Your task to perform on an android device: install app "HBO Max: Stream TV & Movies" Image 0: 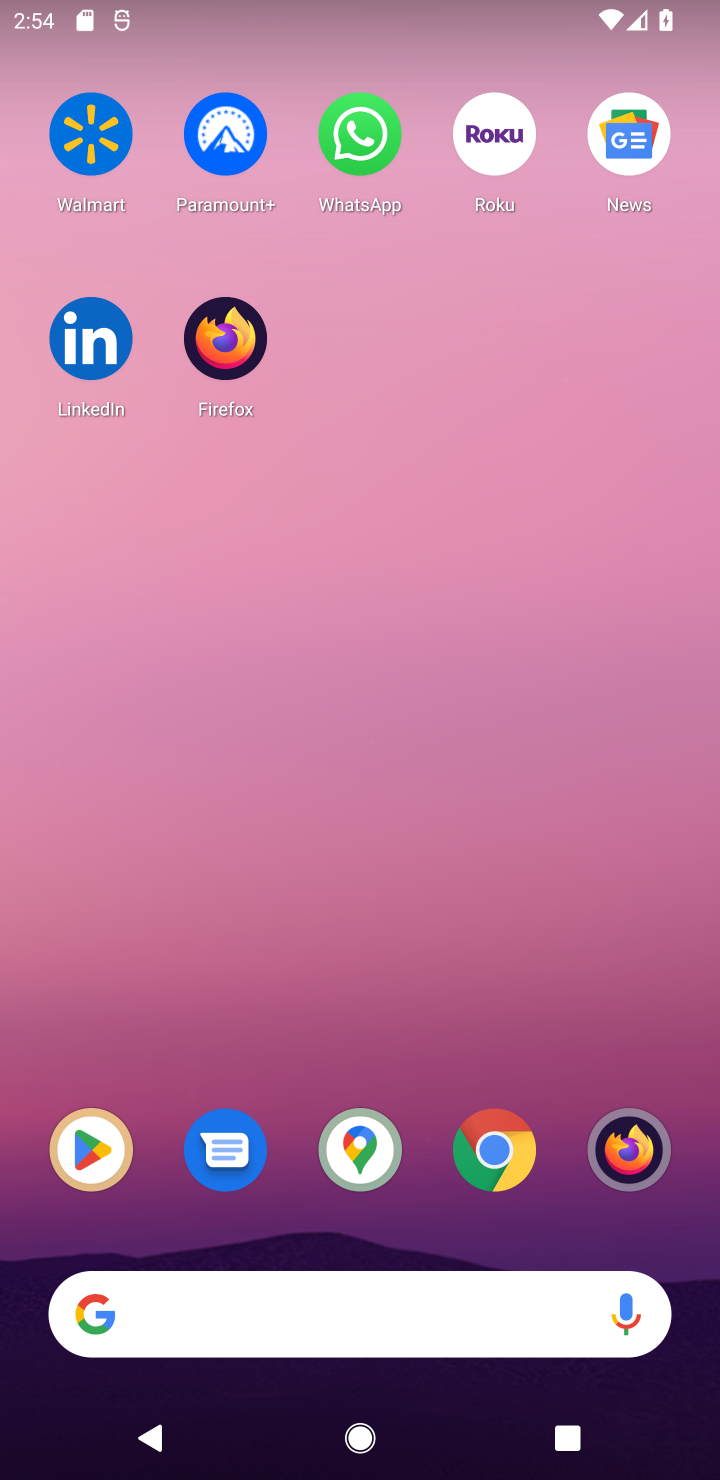
Step 0: drag from (437, 1222) to (440, 275)
Your task to perform on an android device: install app "HBO Max: Stream TV & Movies" Image 1: 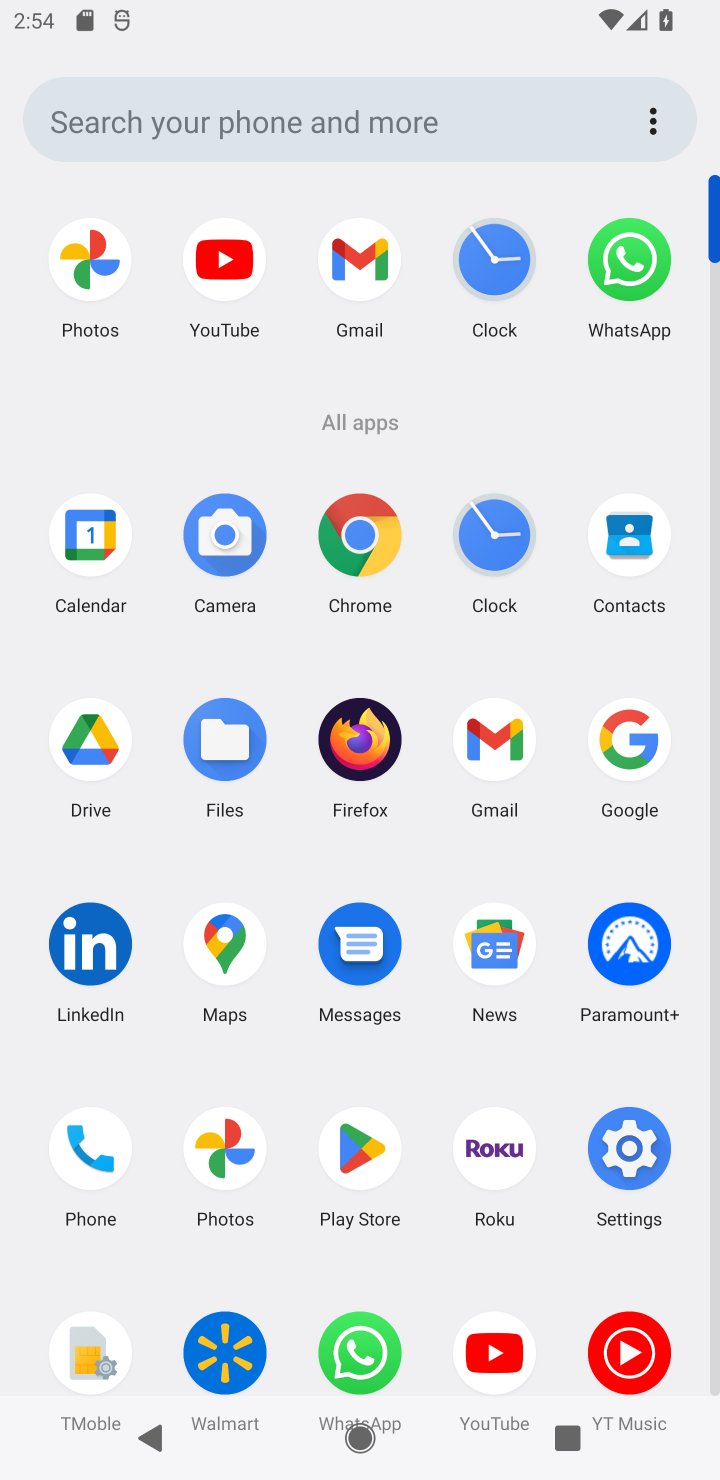
Step 1: click (362, 1139)
Your task to perform on an android device: install app "HBO Max: Stream TV & Movies" Image 2: 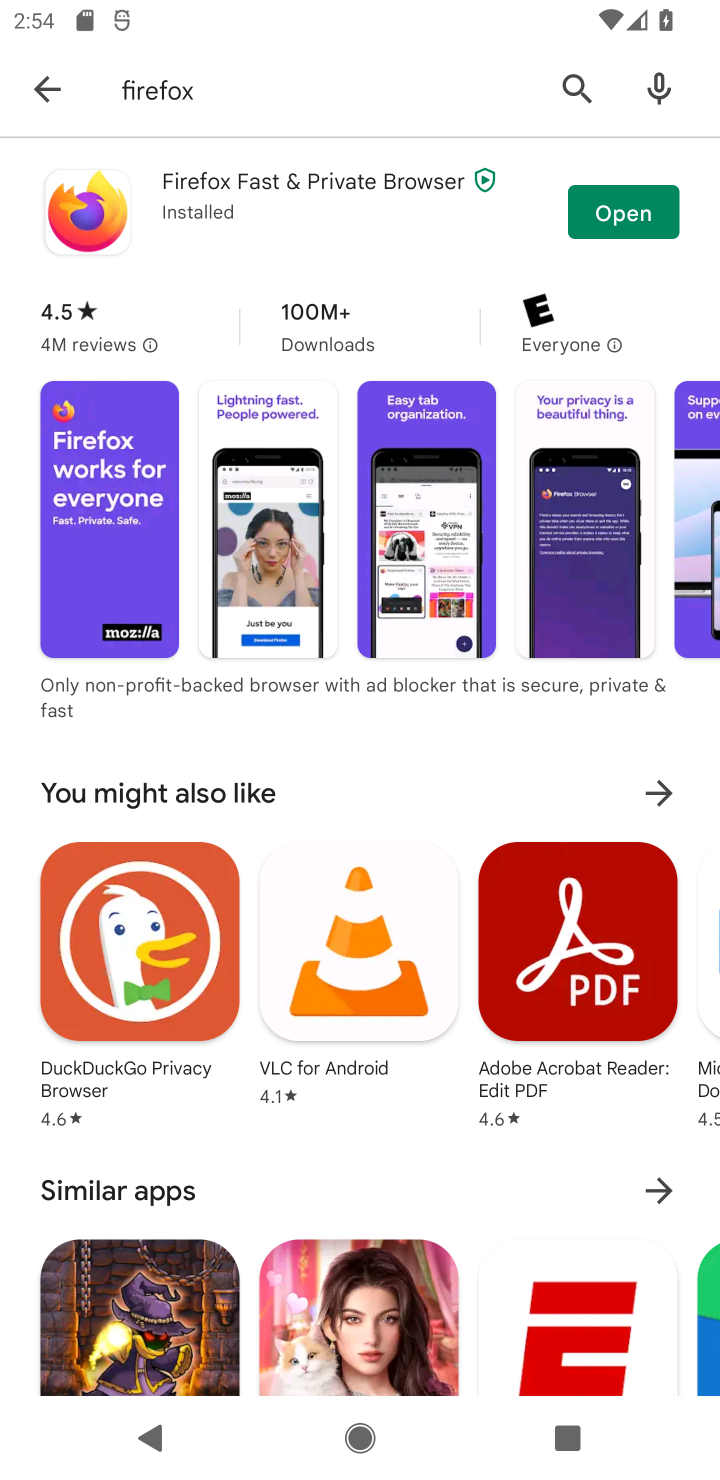
Step 2: click (553, 111)
Your task to perform on an android device: install app "HBO Max: Stream TV & Movies" Image 3: 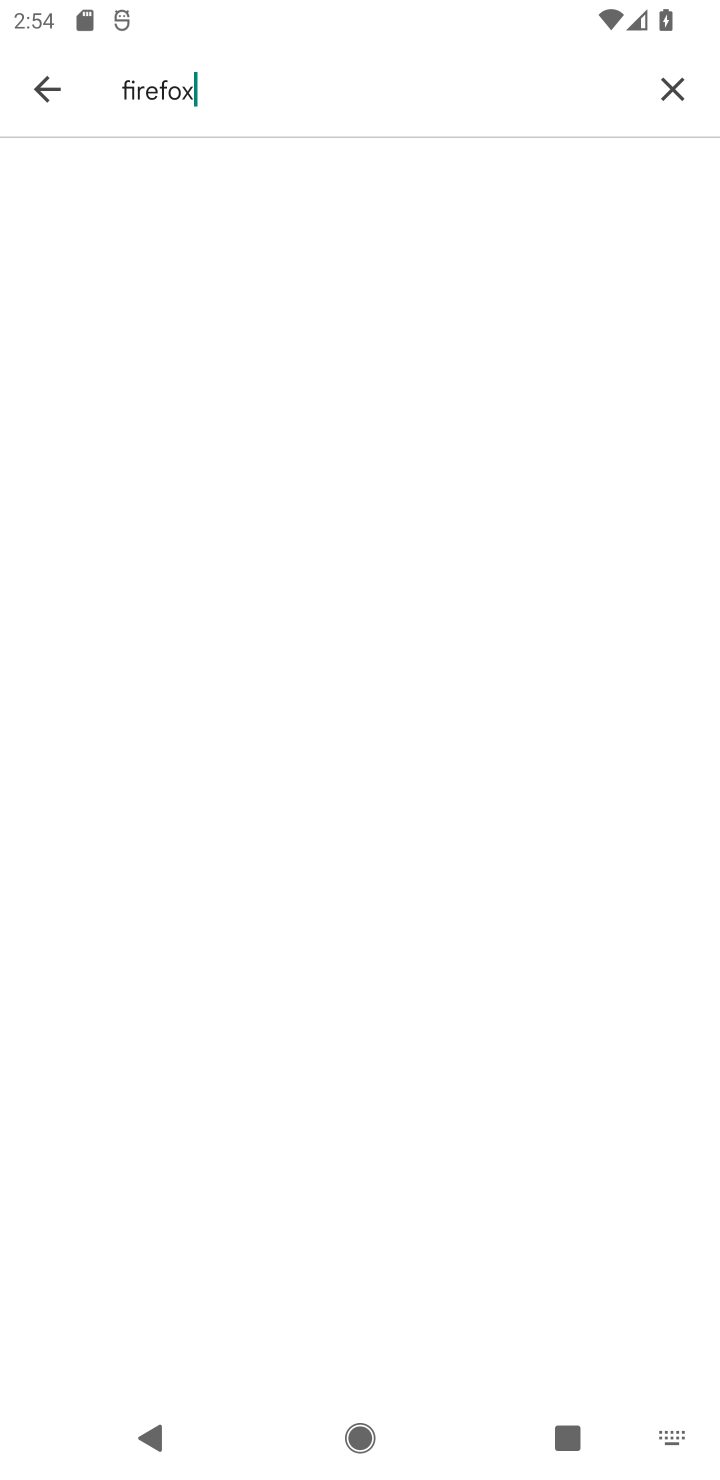
Step 3: click (553, 111)
Your task to perform on an android device: install app "HBO Max: Stream TV & Movies" Image 4: 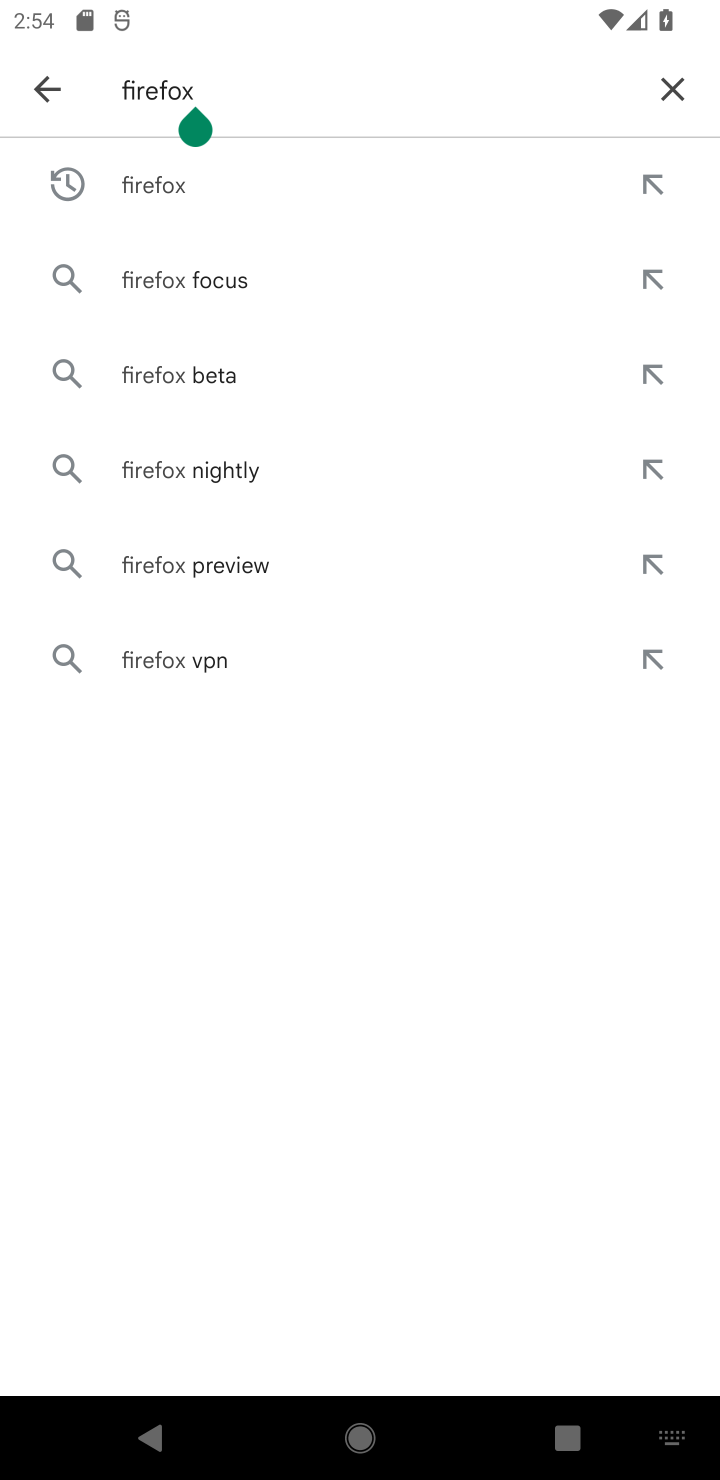
Step 4: click (666, 104)
Your task to perform on an android device: install app "HBO Max: Stream TV & Movies" Image 5: 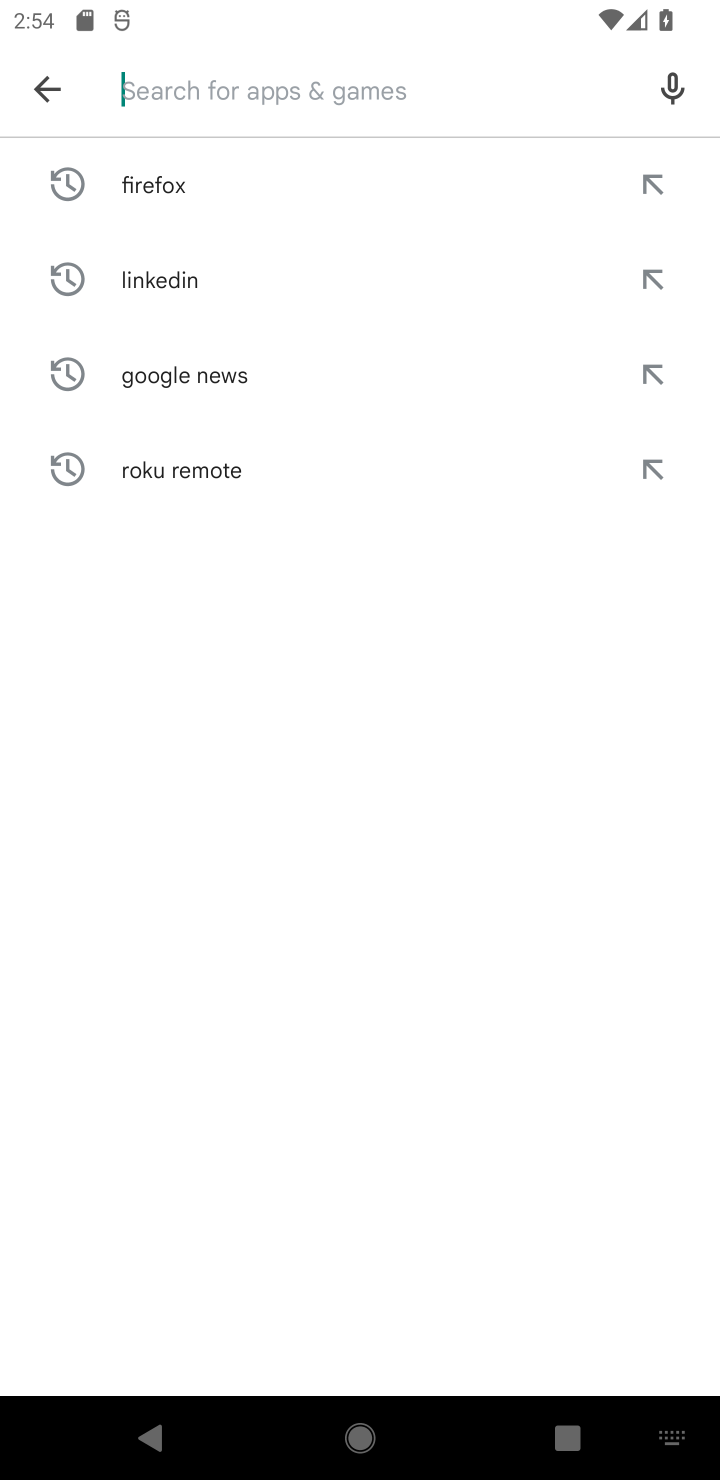
Step 5: type "HBO Max"
Your task to perform on an android device: install app "HBO Max: Stream TV & Movies" Image 6: 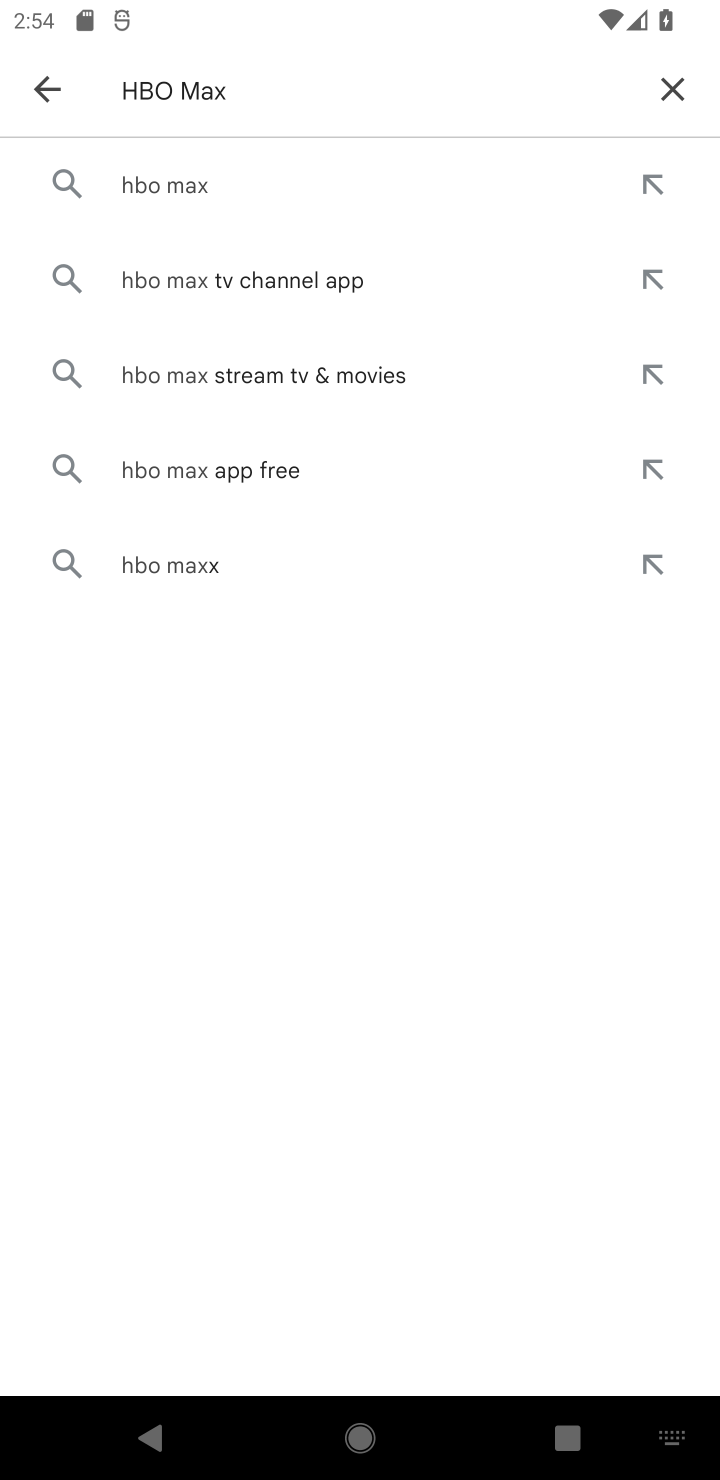
Step 6: click (644, 185)
Your task to perform on an android device: install app "HBO Max: Stream TV & Movies" Image 7: 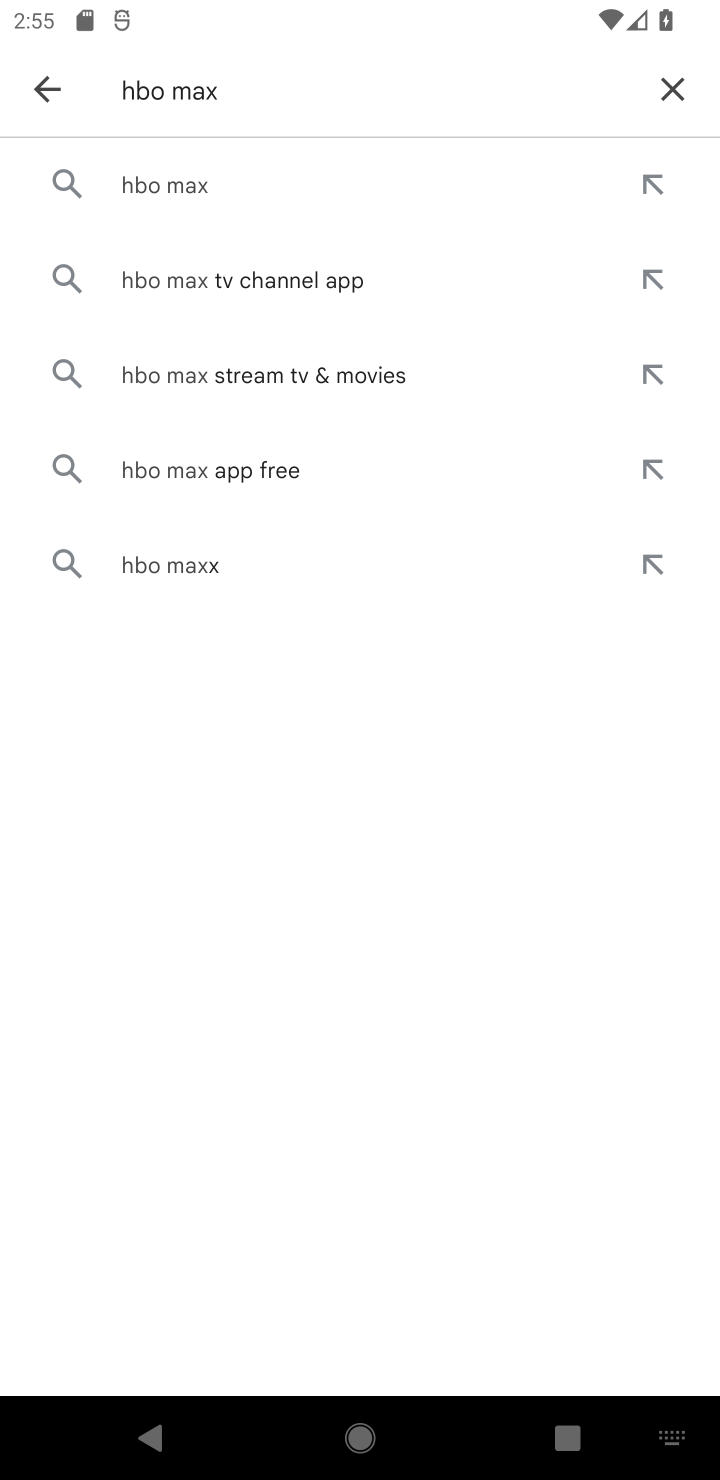
Step 7: click (396, 207)
Your task to perform on an android device: install app "HBO Max: Stream TV & Movies" Image 8: 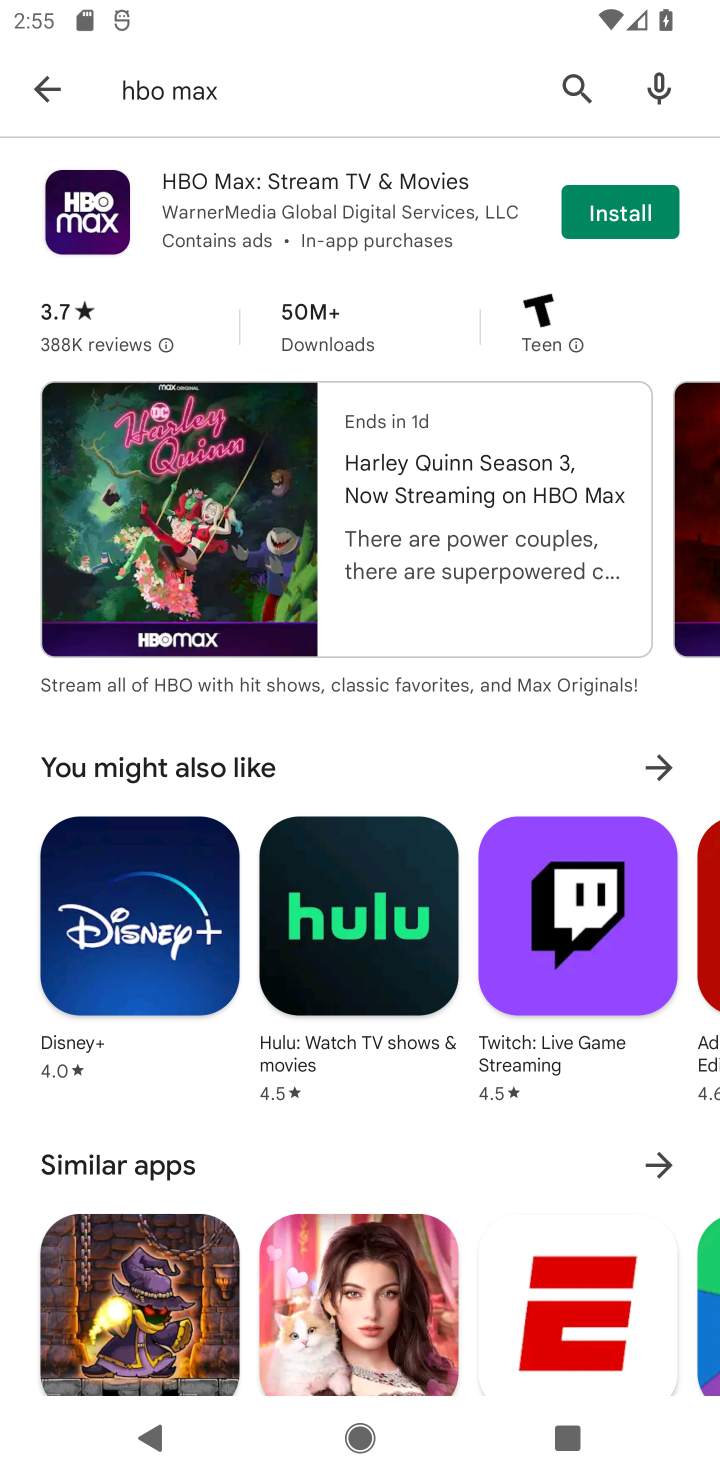
Step 8: click (613, 248)
Your task to perform on an android device: install app "HBO Max: Stream TV & Movies" Image 9: 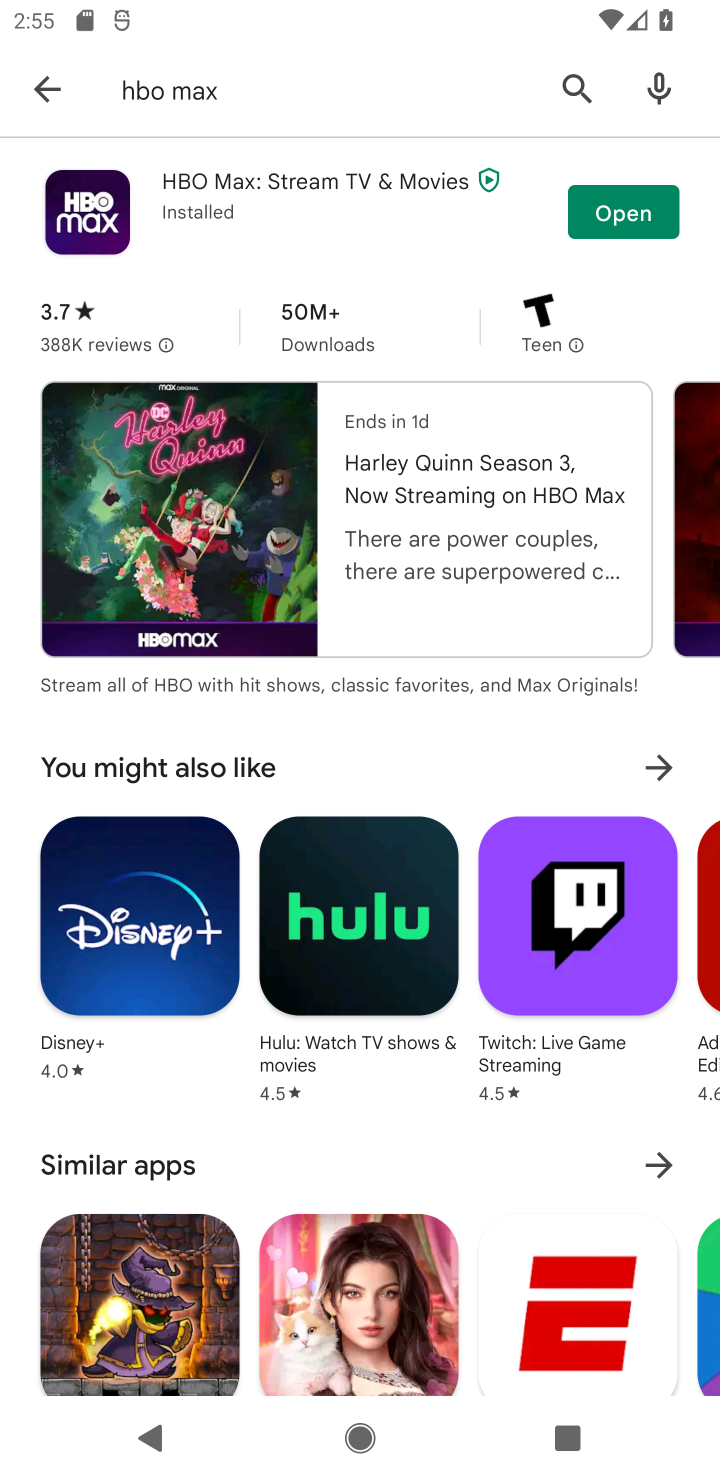
Step 9: task complete